Your task to perform on an android device: change your default location settings in chrome Image 0: 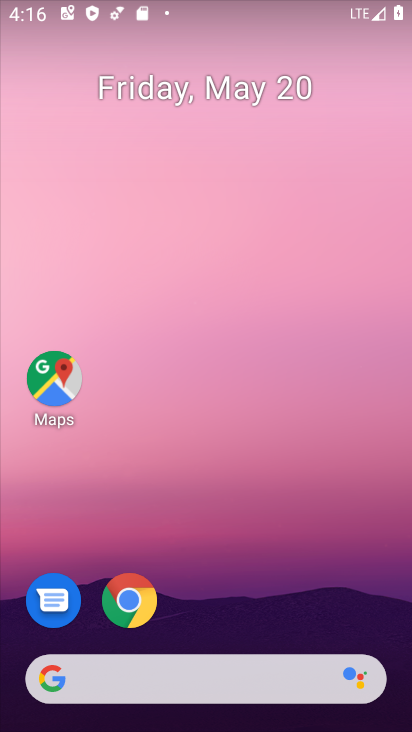
Step 0: drag from (239, 570) to (199, 13)
Your task to perform on an android device: change your default location settings in chrome Image 1: 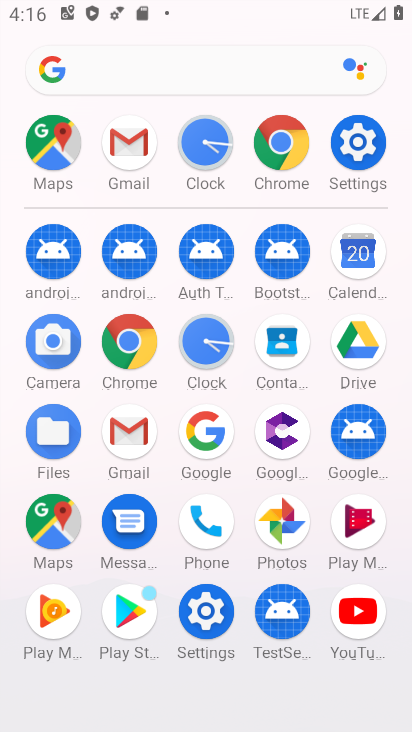
Step 1: click (127, 338)
Your task to perform on an android device: change your default location settings in chrome Image 2: 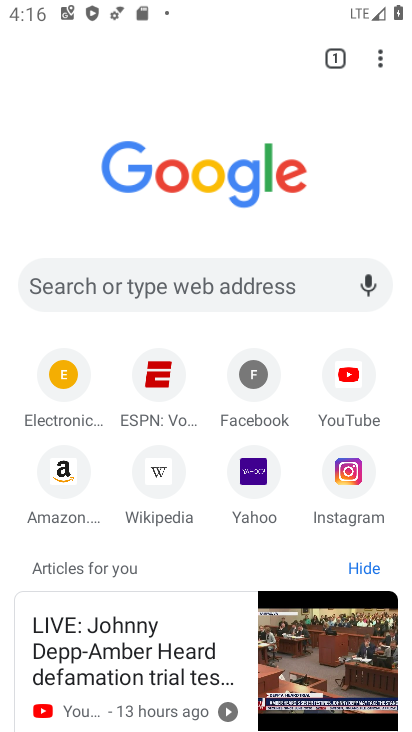
Step 2: drag from (375, 56) to (177, 565)
Your task to perform on an android device: change your default location settings in chrome Image 3: 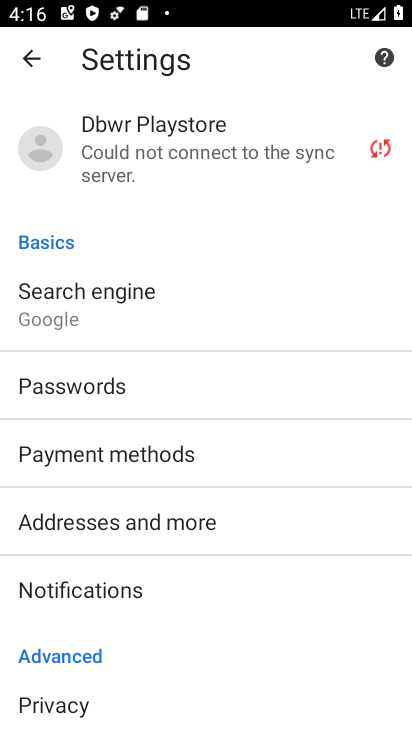
Step 3: drag from (255, 583) to (242, 216)
Your task to perform on an android device: change your default location settings in chrome Image 4: 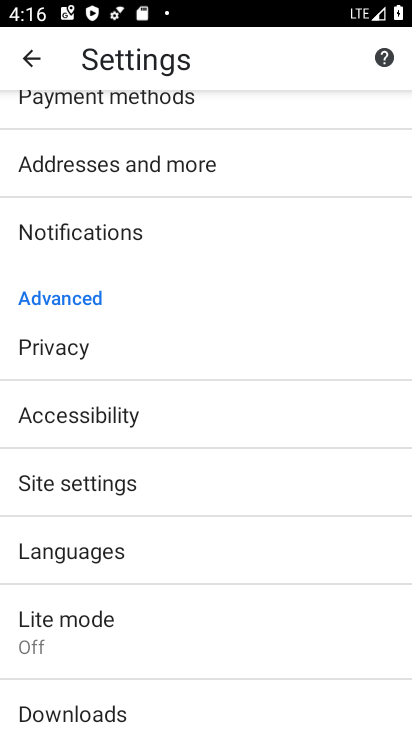
Step 4: drag from (265, 545) to (291, 154)
Your task to perform on an android device: change your default location settings in chrome Image 5: 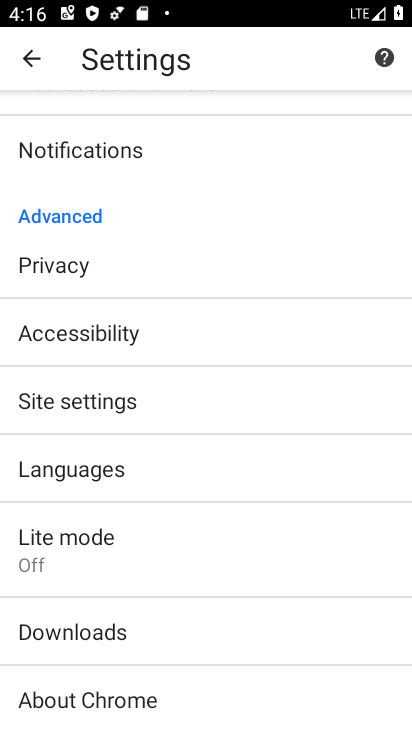
Step 5: click (126, 408)
Your task to perform on an android device: change your default location settings in chrome Image 6: 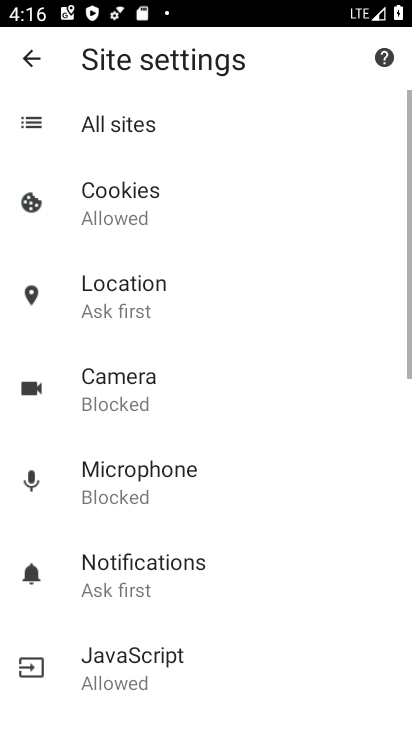
Step 6: click (167, 303)
Your task to perform on an android device: change your default location settings in chrome Image 7: 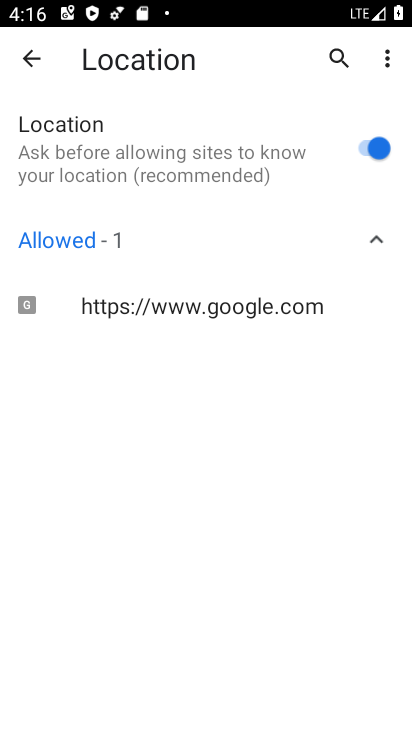
Step 7: click (368, 133)
Your task to perform on an android device: change your default location settings in chrome Image 8: 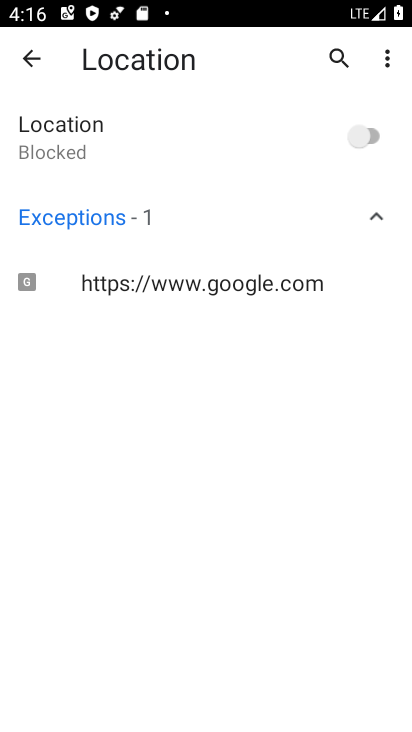
Step 8: task complete